Your task to perform on an android device: visit the assistant section in the google photos Image 0: 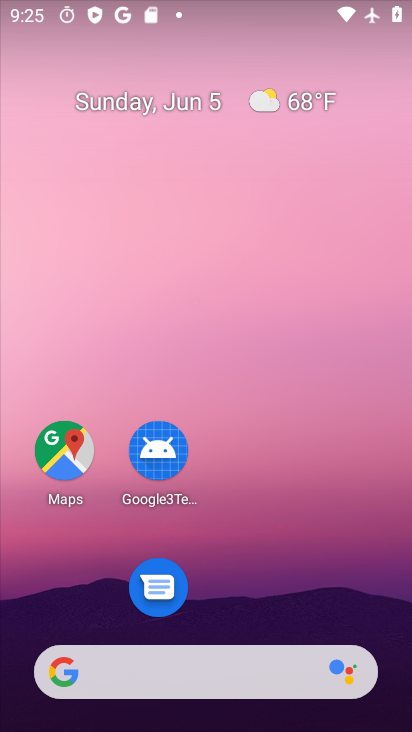
Step 0: drag from (232, 572) to (8, 60)
Your task to perform on an android device: visit the assistant section in the google photos Image 1: 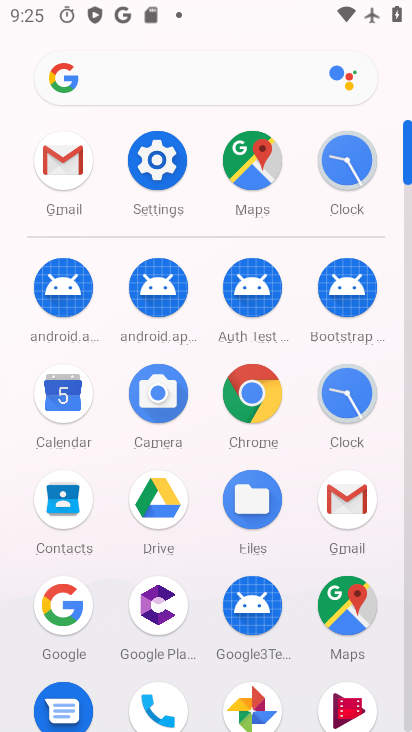
Step 1: click (258, 709)
Your task to perform on an android device: visit the assistant section in the google photos Image 2: 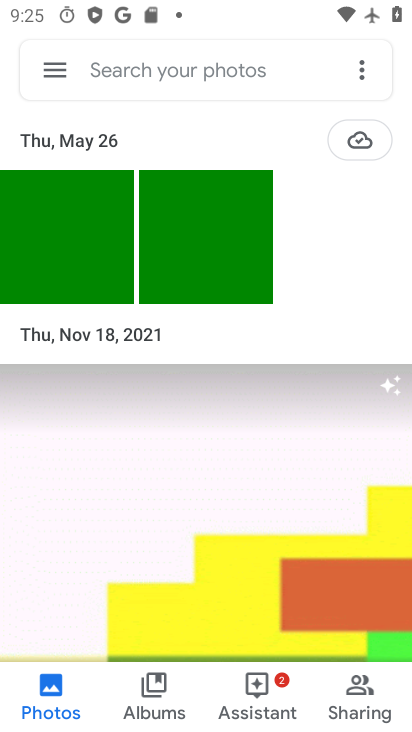
Step 2: click (255, 694)
Your task to perform on an android device: visit the assistant section in the google photos Image 3: 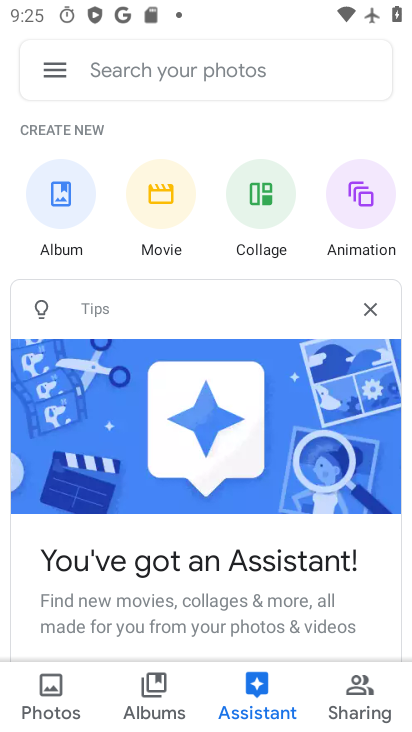
Step 3: click (255, 694)
Your task to perform on an android device: visit the assistant section in the google photos Image 4: 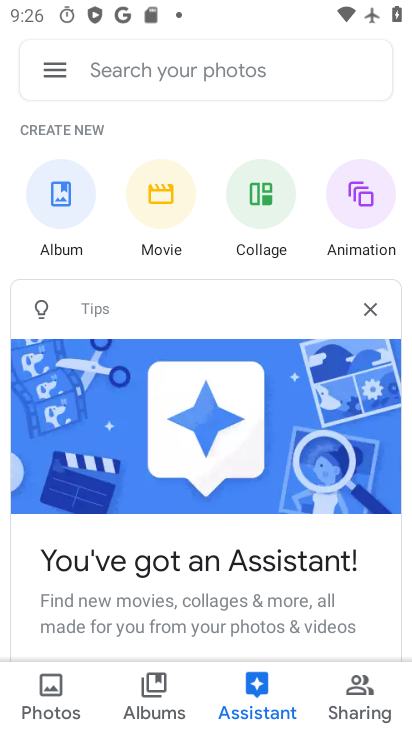
Step 4: task complete